Your task to perform on an android device: Search for sushi restaurants on Maps Image 0: 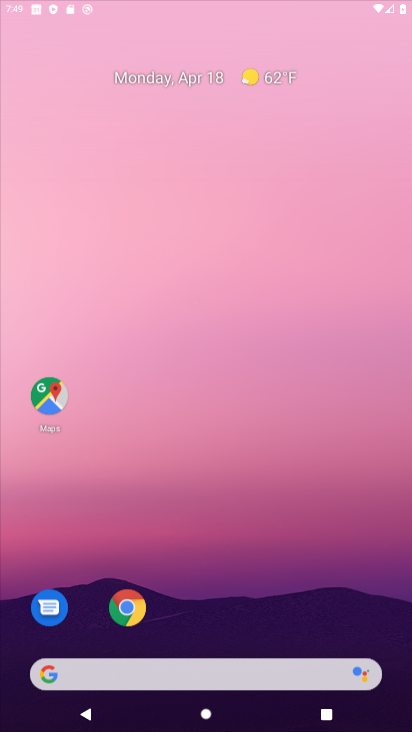
Step 0: click (349, 436)
Your task to perform on an android device: Search for sushi restaurants on Maps Image 1: 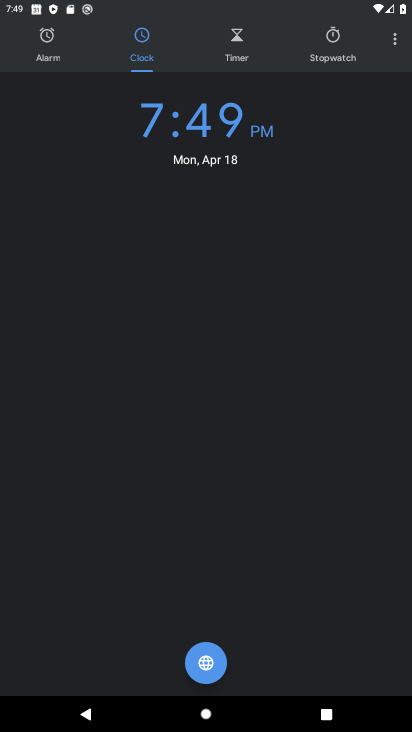
Step 1: press back button
Your task to perform on an android device: Search for sushi restaurants on Maps Image 2: 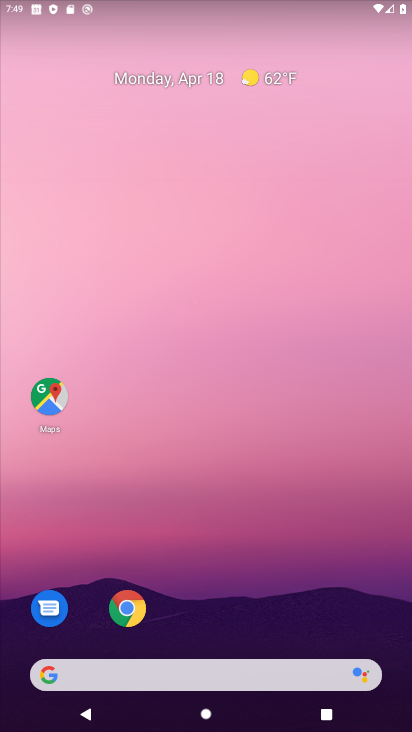
Step 2: click (54, 419)
Your task to perform on an android device: Search for sushi restaurants on Maps Image 3: 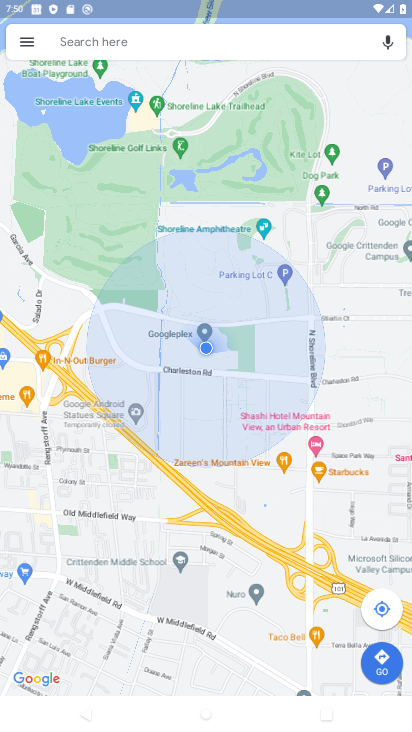
Step 3: click (215, 44)
Your task to perform on an android device: Search for sushi restaurants on Maps Image 4: 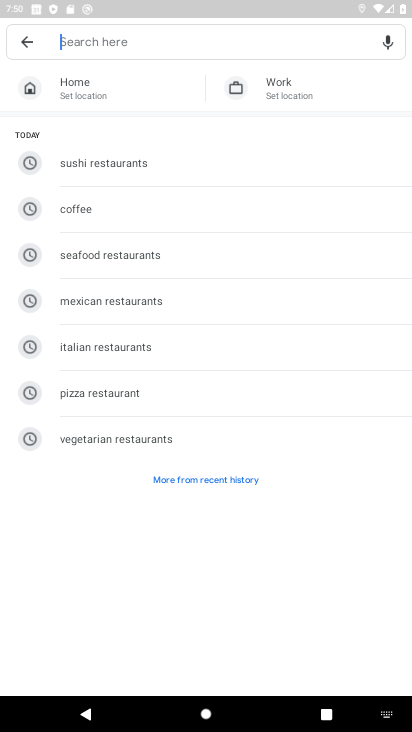
Step 4: click (139, 165)
Your task to perform on an android device: Search for sushi restaurants on Maps Image 5: 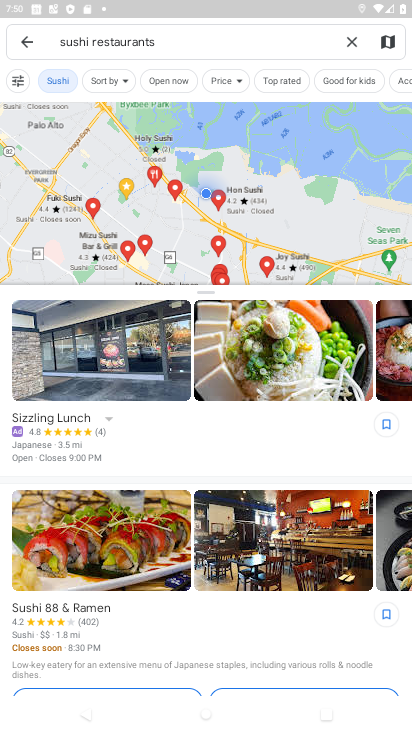
Step 5: task complete